Your task to perform on an android device: Show me popular games on the Play Store Image 0: 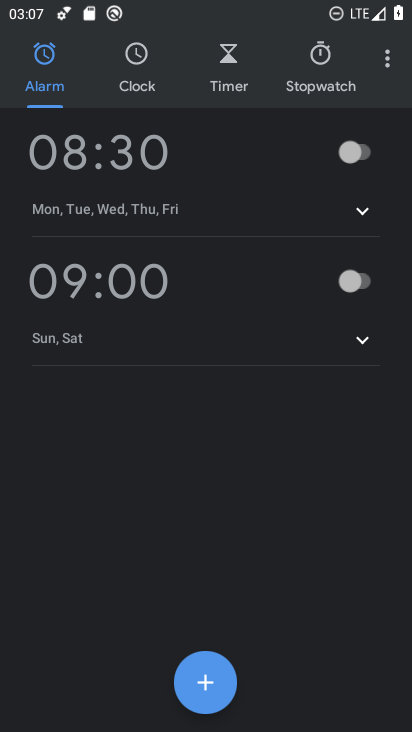
Step 0: press home button
Your task to perform on an android device: Show me popular games on the Play Store Image 1: 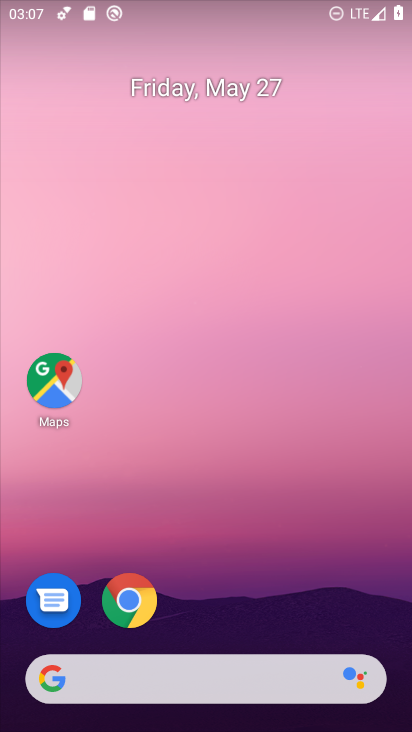
Step 1: drag from (233, 725) to (240, 251)
Your task to perform on an android device: Show me popular games on the Play Store Image 2: 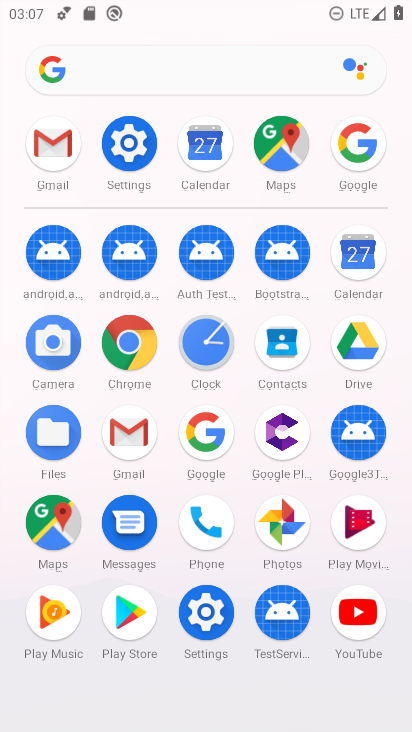
Step 2: click (129, 613)
Your task to perform on an android device: Show me popular games on the Play Store Image 3: 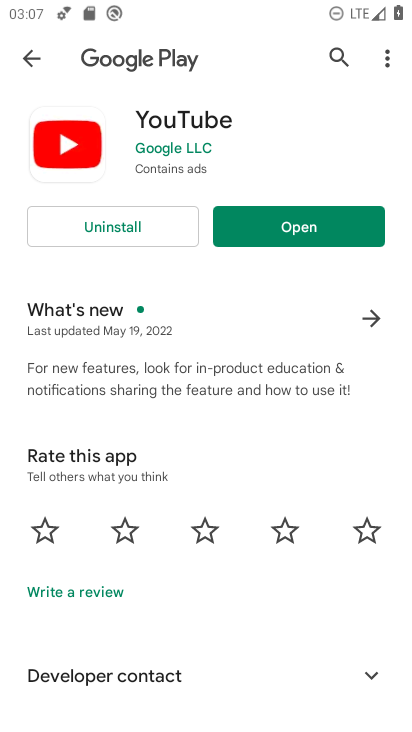
Step 3: click (26, 49)
Your task to perform on an android device: Show me popular games on the Play Store Image 4: 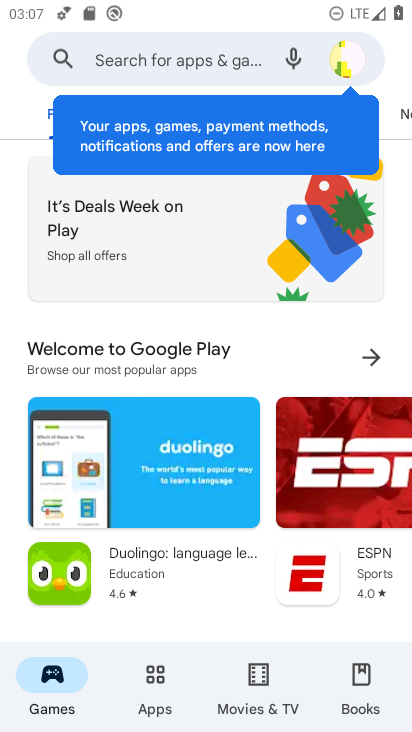
Step 4: drag from (220, 622) to (226, 191)
Your task to perform on an android device: Show me popular games on the Play Store Image 5: 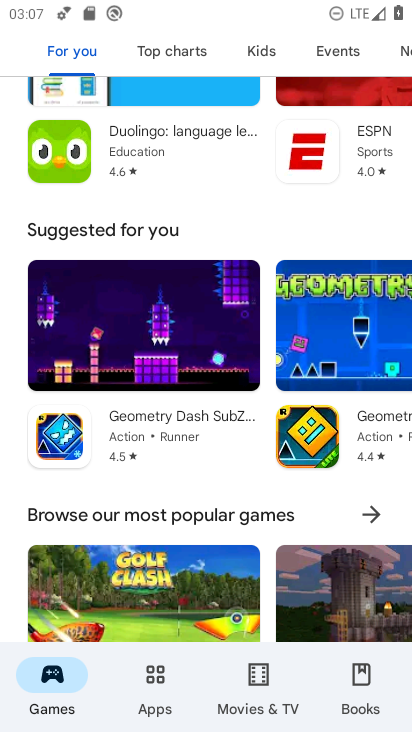
Step 5: click (369, 511)
Your task to perform on an android device: Show me popular games on the Play Store Image 6: 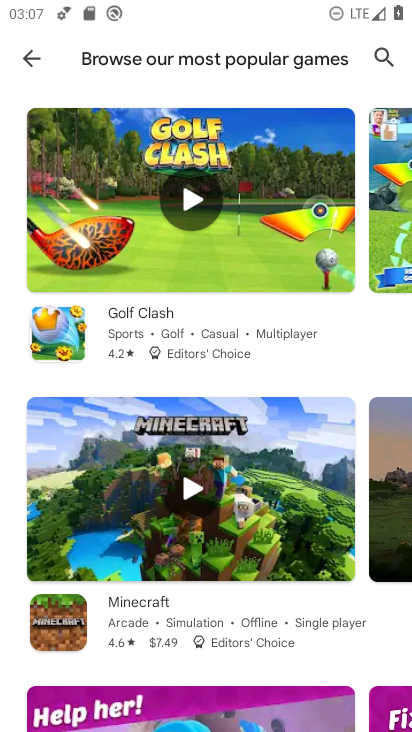
Step 6: task complete